Your task to perform on an android device: uninstall "VLC for Android" Image 0: 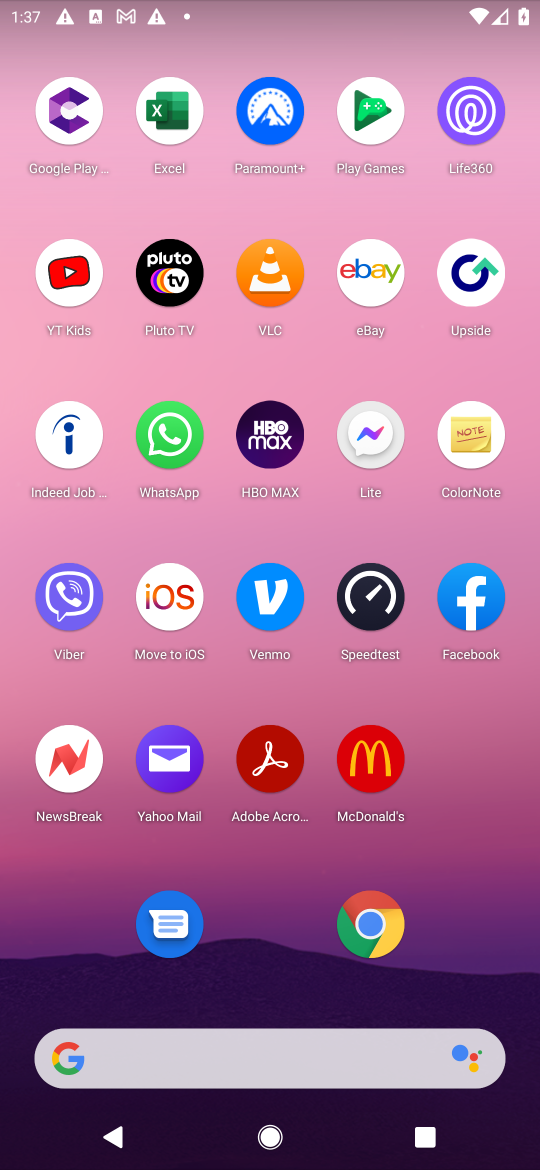
Step 0: press home button
Your task to perform on an android device: uninstall "VLC for Android" Image 1: 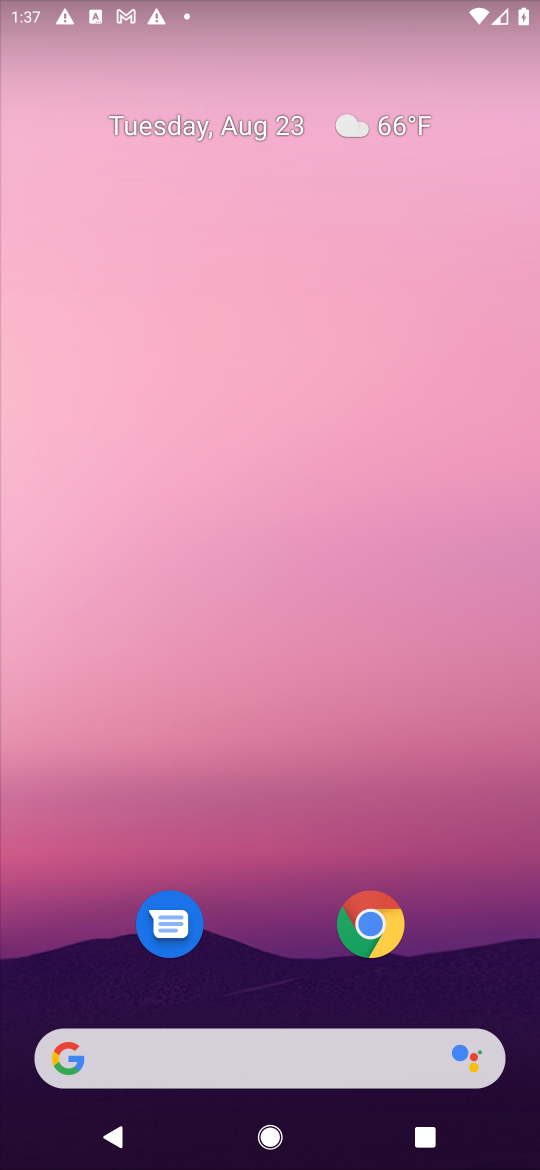
Step 1: drag from (480, 947) to (456, 131)
Your task to perform on an android device: uninstall "VLC for Android" Image 2: 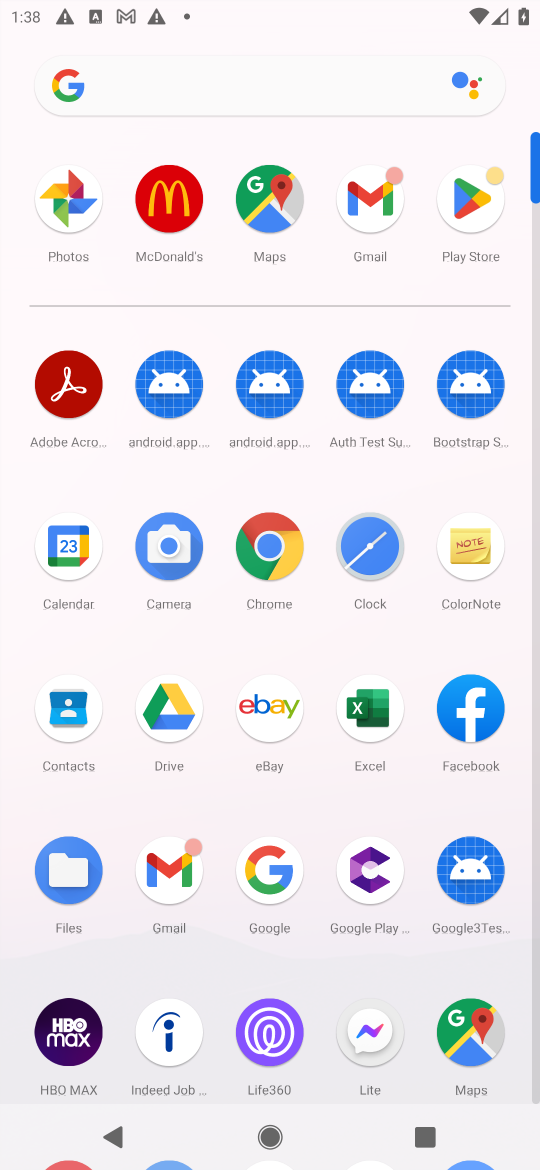
Step 2: click (466, 183)
Your task to perform on an android device: uninstall "VLC for Android" Image 3: 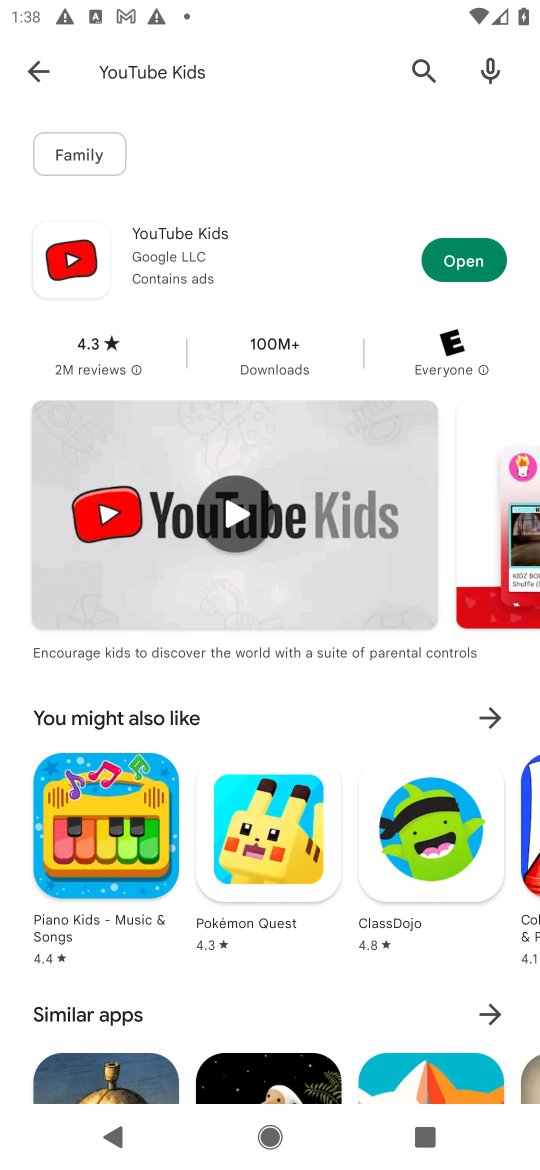
Step 3: press back button
Your task to perform on an android device: uninstall "VLC for Android" Image 4: 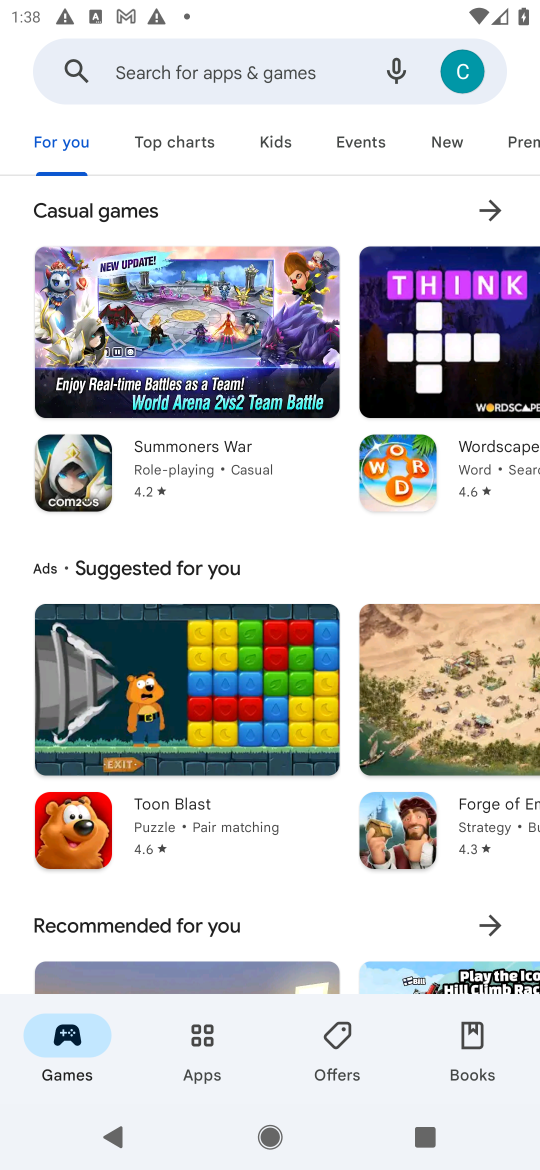
Step 4: click (258, 65)
Your task to perform on an android device: uninstall "VLC for Android" Image 5: 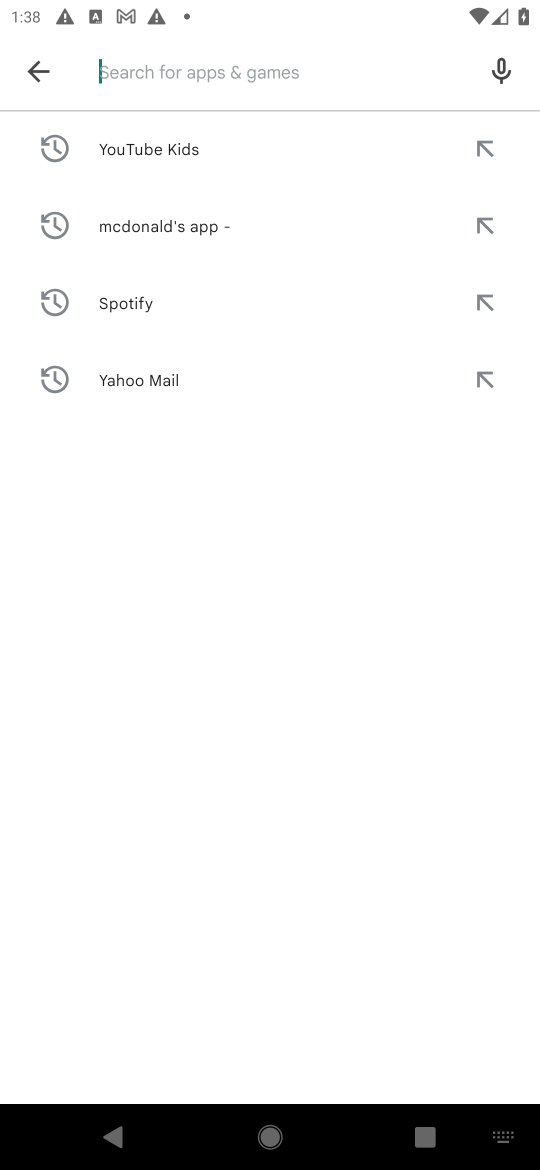
Step 5: type "VLC for Android"
Your task to perform on an android device: uninstall "VLC for Android" Image 6: 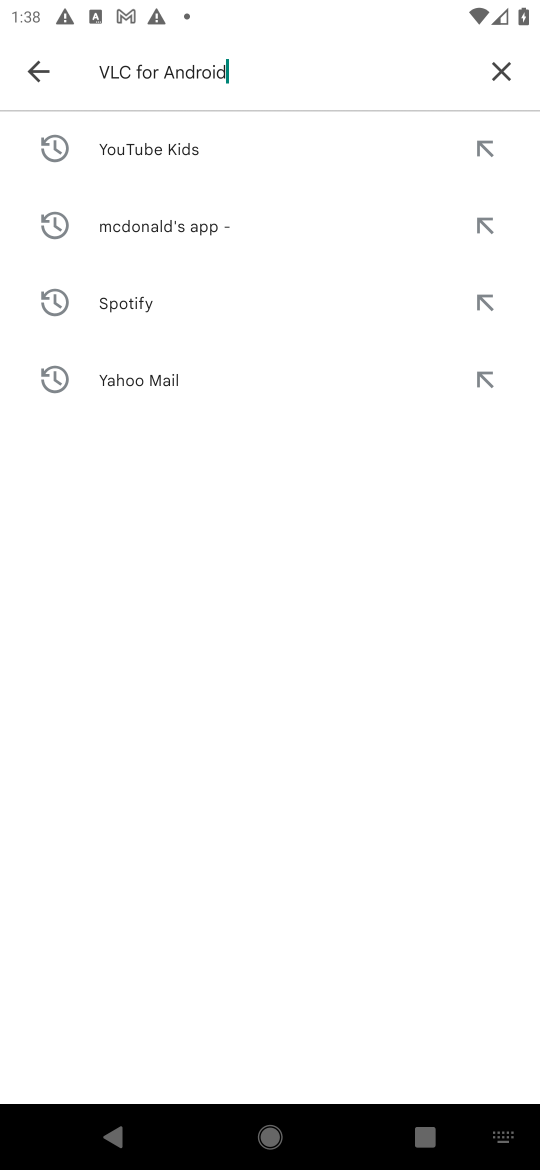
Step 6: press enter
Your task to perform on an android device: uninstall "VLC for Android" Image 7: 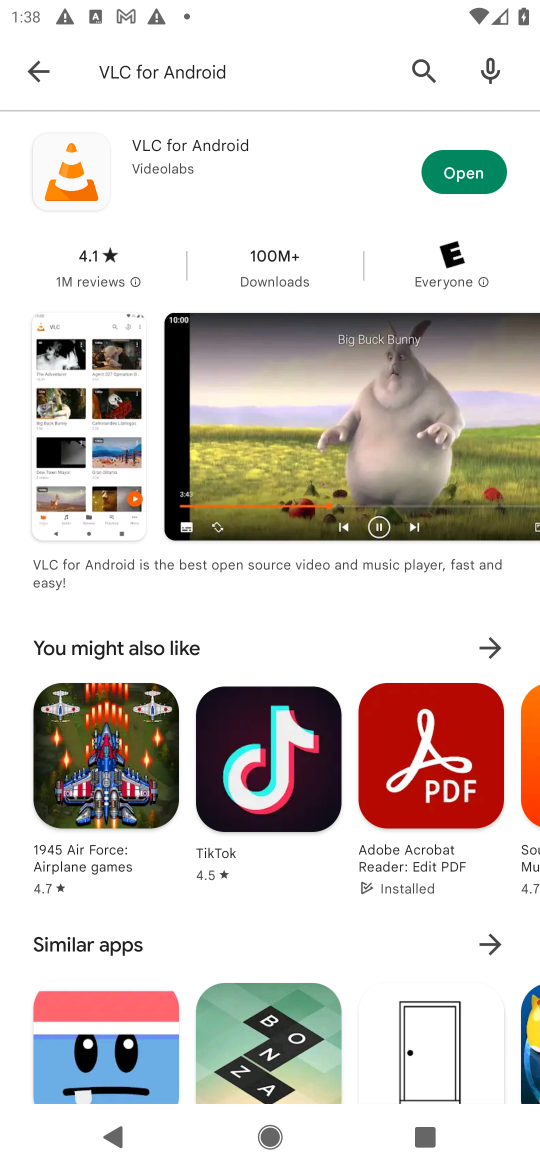
Step 7: task complete